Your task to perform on an android device: Open the stopwatch Image 0: 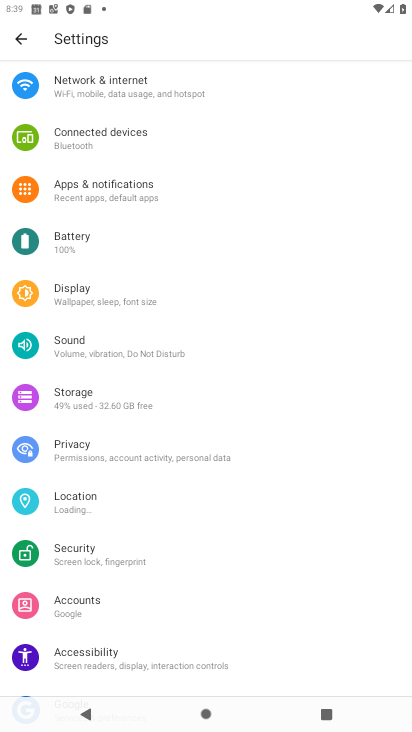
Step 0: press home button
Your task to perform on an android device: Open the stopwatch Image 1: 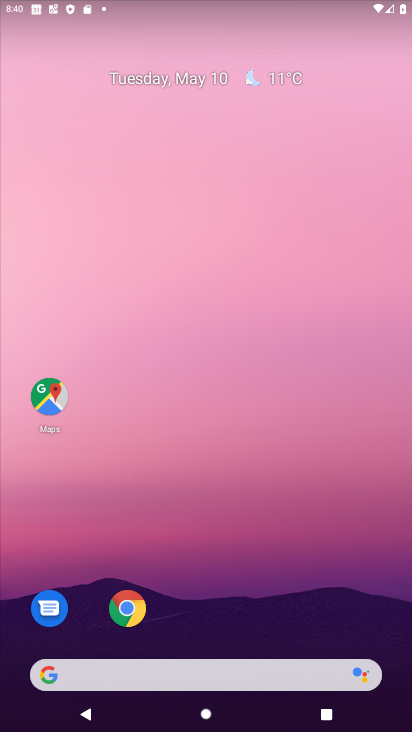
Step 1: drag from (190, 666) to (120, 179)
Your task to perform on an android device: Open the stopwatch Image 2: 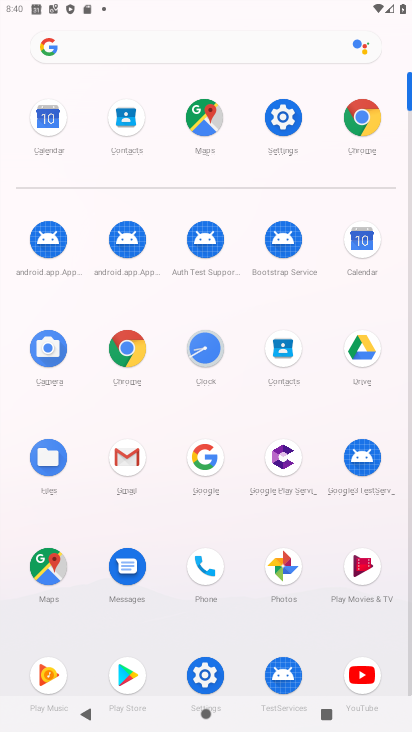
Step 2: click (208, 354)
Your task to perform on an android device: Open the stopwatch Image 3: 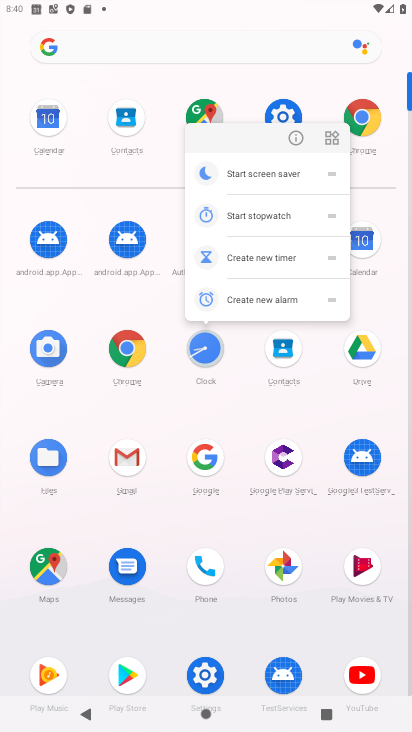
Step 3: click (243, 214)
Your task to perform on an android device: Open the stopwatch Image 4: 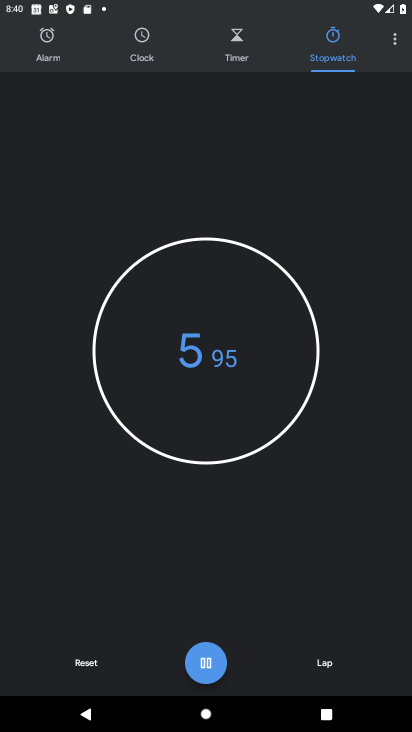
Step 4: task complete